Your task to perform on an android device: Open Amazon Image 0: 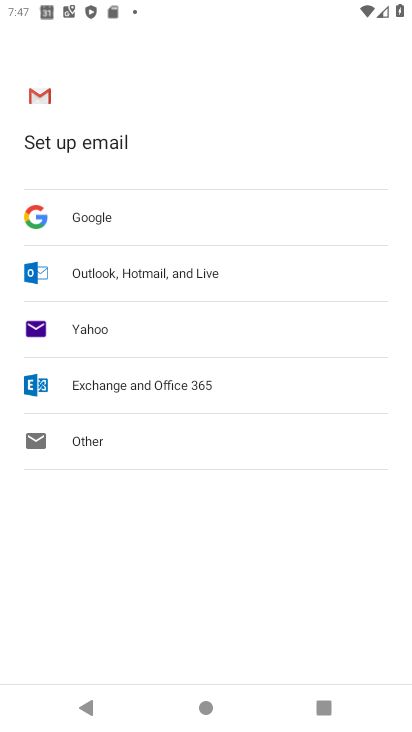
Step 0: press back button
Your task to perform on an android device: Open Amazon Image 1: 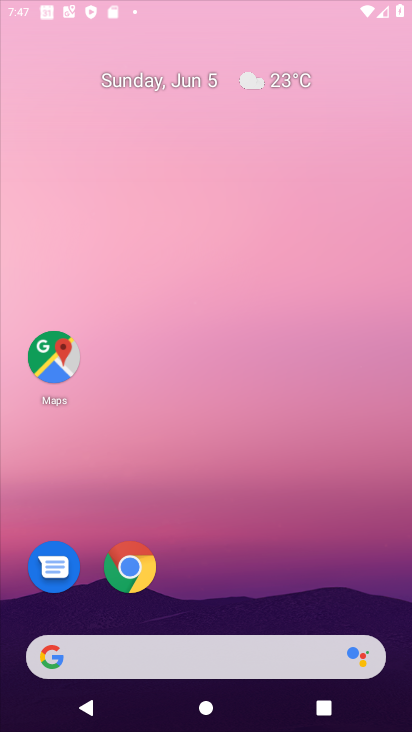
Step 1: press home button
Your task to perform on an android device: Open Amazon Image 2: 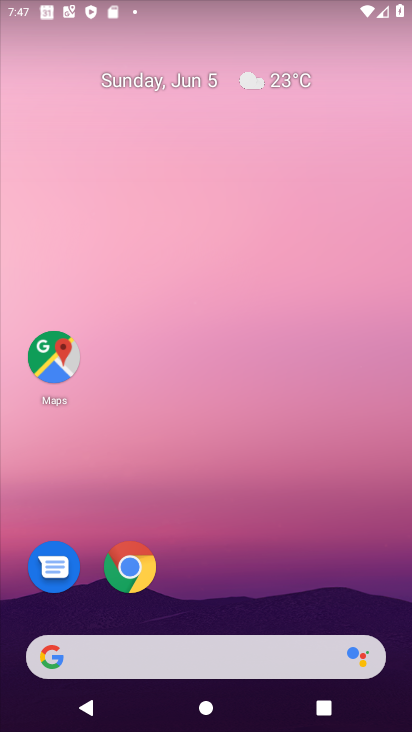
Step 2: drag from (407, 644) to (392, 537)
Your task to perform on an android device: Open Amazon Image 3: 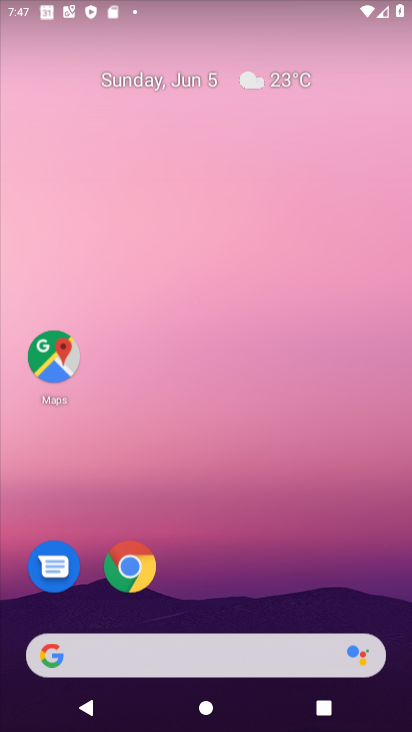
Step 3: drag from (298, 177) to (230, 28)
Your task to perform on an android device: Open Amazon Image 4: 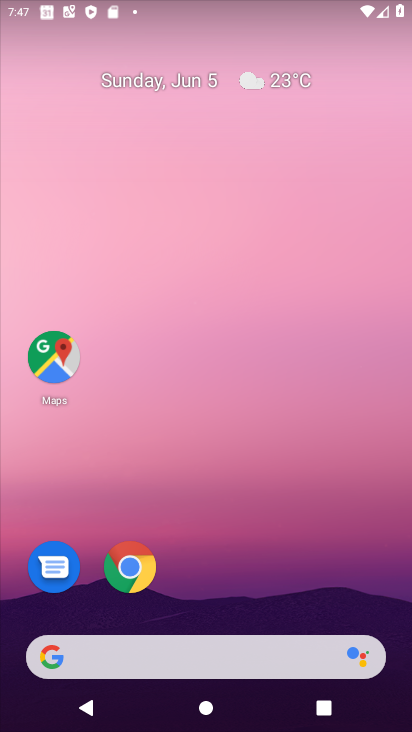
Step 4: drag from (400, 641) to (344, 276)
Your task to perform on an android device: Open Amazon Image 5: 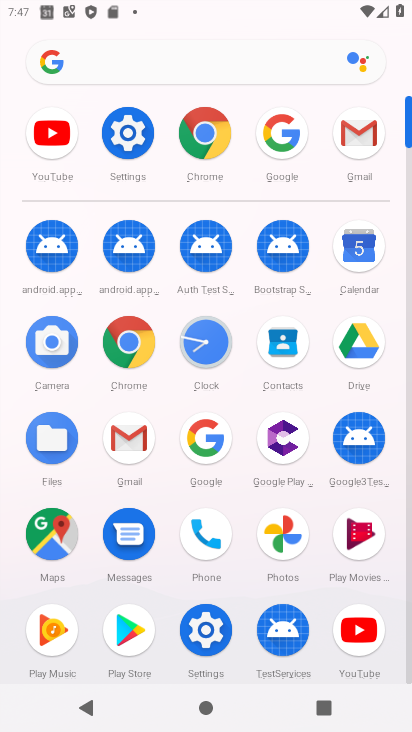
Step 5: click (201, 451)
Your task to perform on an android device: Open Amazon Image 6: 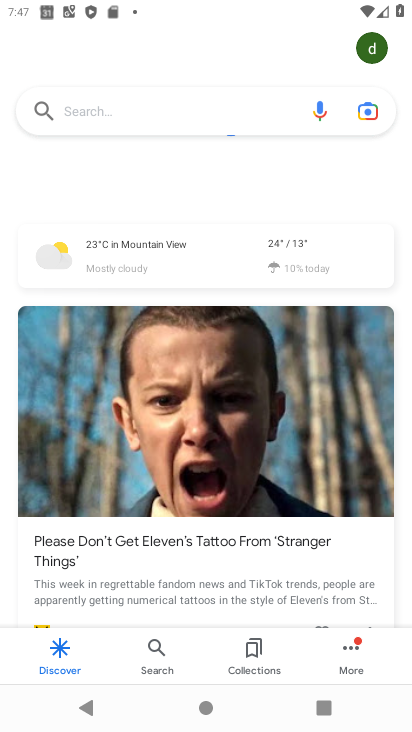
Step 6: click (125, 117)
Your task to perform on an android device: Open Amazon Image 7: 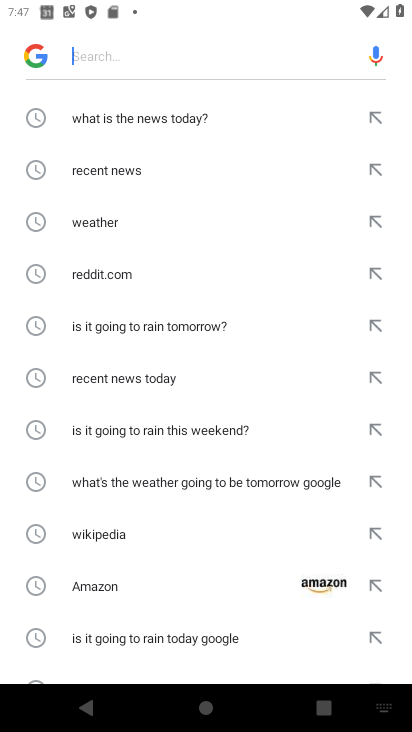
Step 7: click (147, 585)
Your task to perform on an android device: Open Amazon Image 8: 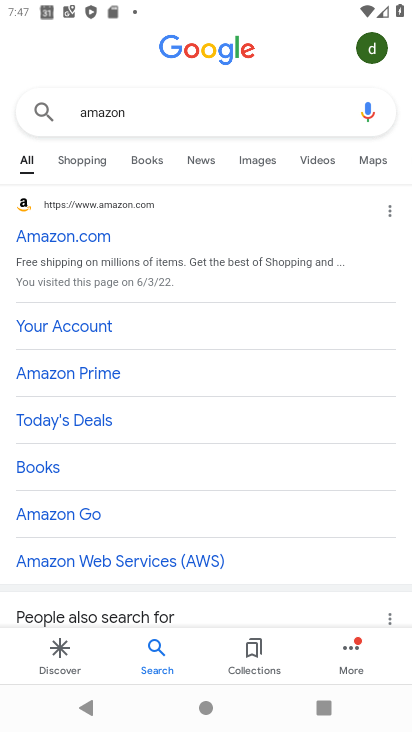
Step 8: task complete